Your task to perform on an android device: toggle notification dots Image 0: 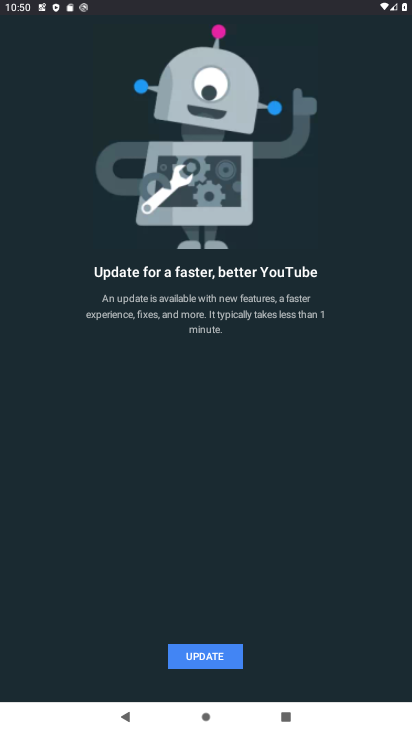
Step 0: press home button
Your task to perform on an android device: toggle notification dots Image 1: 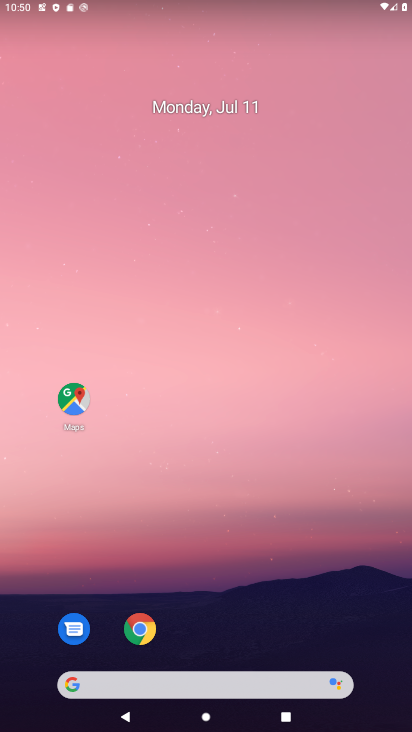
Step 1: drag from (212, 610) to (213, 190)
Your task to perform on an android device: toggle notification dots Image 2: 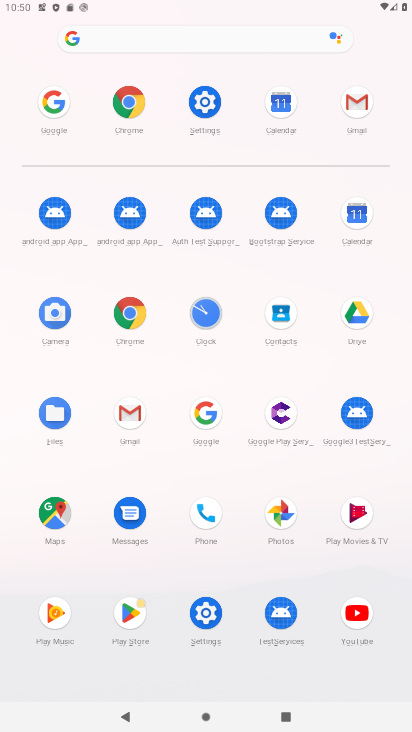
Step 2: click (222, 102)
Your task to perform on an android device: toggle notification dots Image 3: 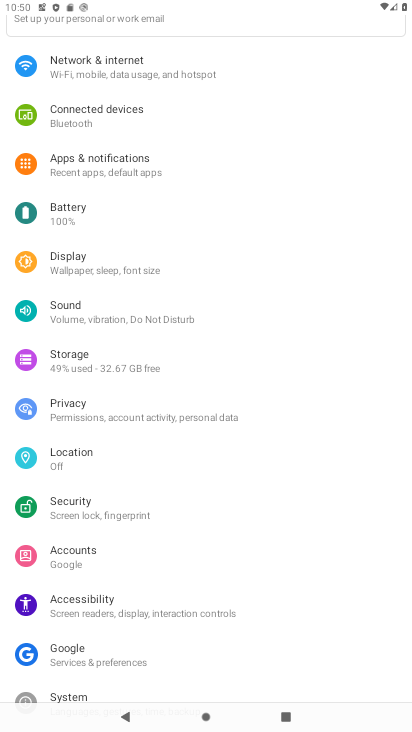
Step 3: click (203, 158)
Your task to perform on an android device: toggle notification dots Image 4: 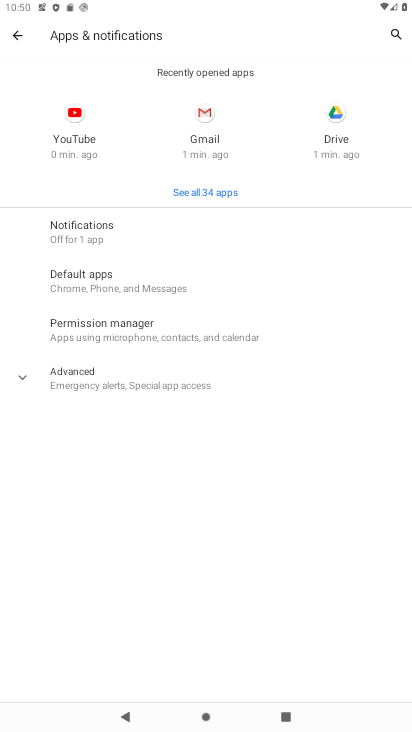
Step 4: click (194, 248)
Your task to perform on an android device: toggle notification dots Image 5: 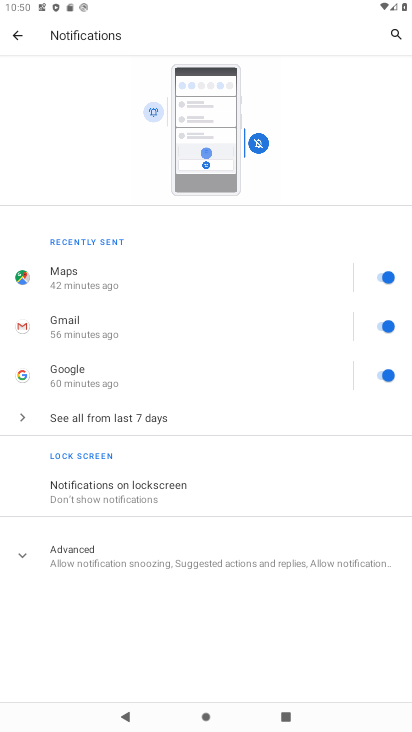
Step 5: click (259, 555)
Your task to perform on an android device: toggle notification dots Image 6: 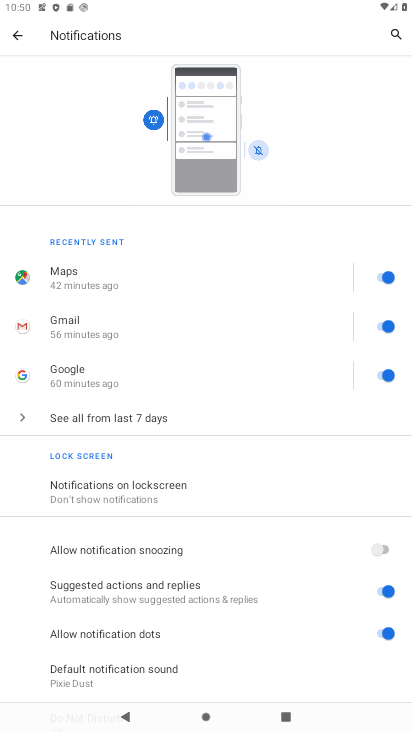
Step 6: click (373, 635)
Your task to perform on an android device: toggle notification dots Image 7: 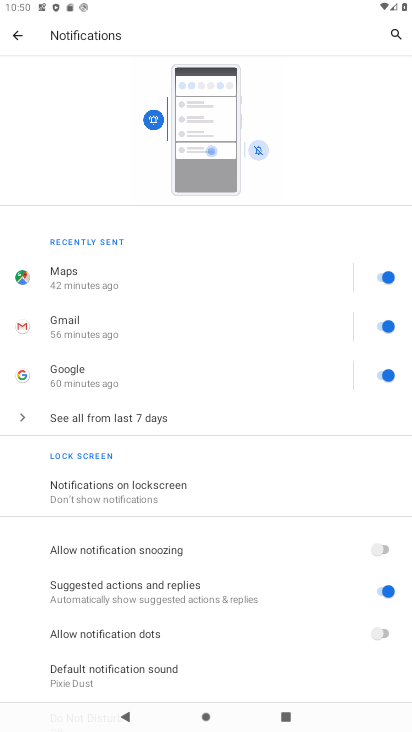
Step 7: task complete